Your task to perform on an android device: toggle wifi Image 0: 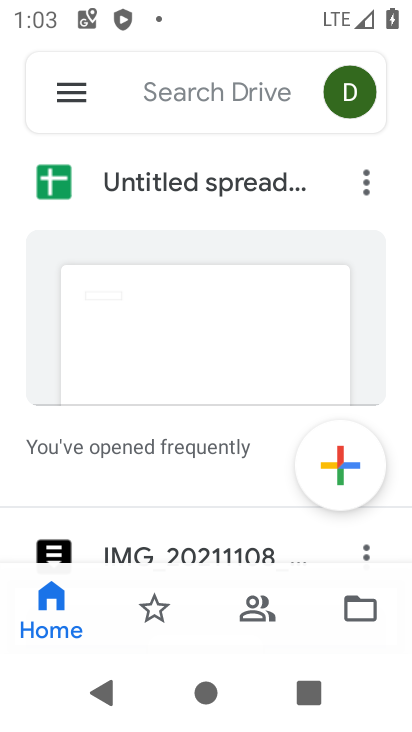
Step 0: press home button
Your task to perform on an android device: toggle wifi Image 1: 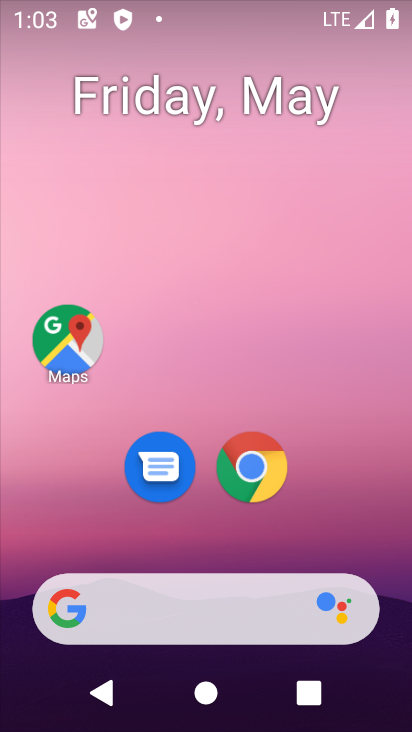
Step 1: drag from (339, 496) to (282, 91)
Your task to perform on an android device: toggle wifi Image 2: 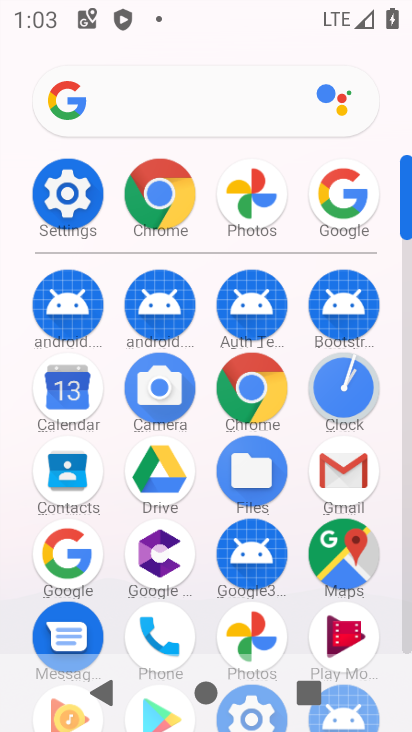
Step 2: drag from (208, 595) to (219, 244)
Your task to perform on an android device: toggle wifi Image 3: 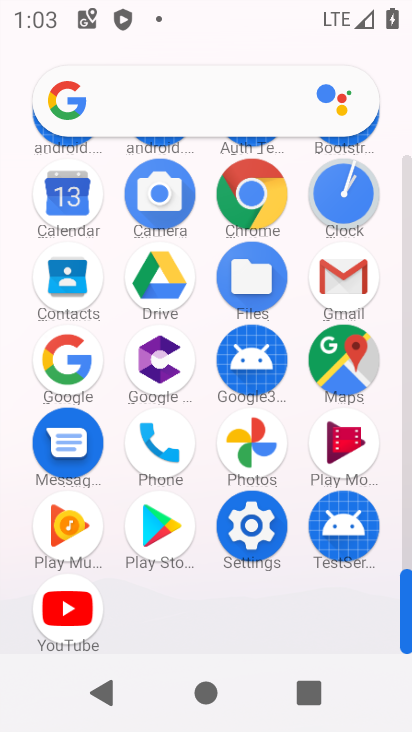
Step 3: click (252, 524)
Your task to perform on an android device: toggle wifi Image 4: 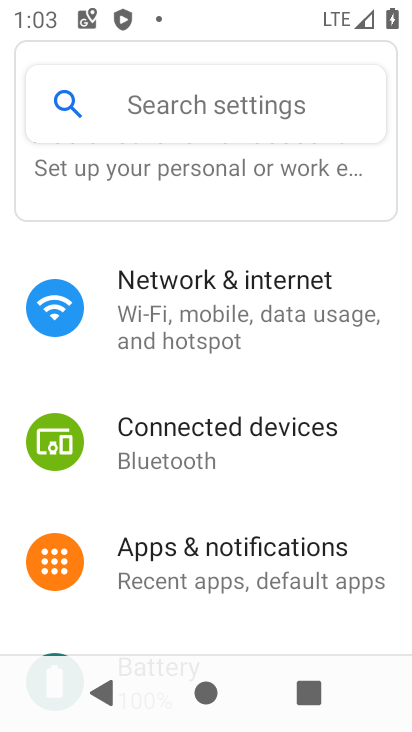
Step 4: click (259, 282)
Your task to perform on an android device: toggle wifi Image 5: 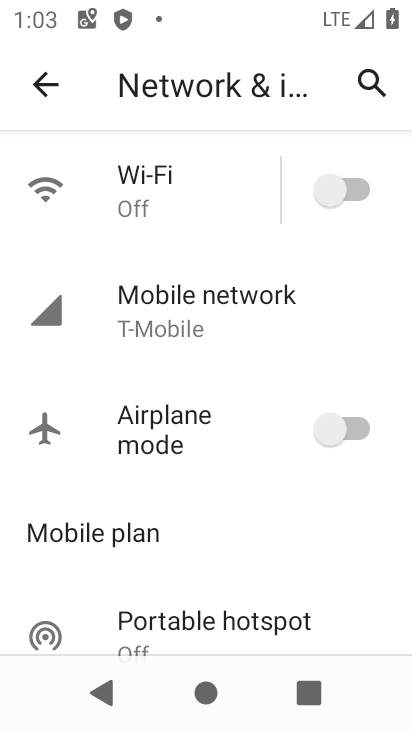
Step 5: click (327, 189)
Your task to perform on an android device: toggle wifi Image 6: 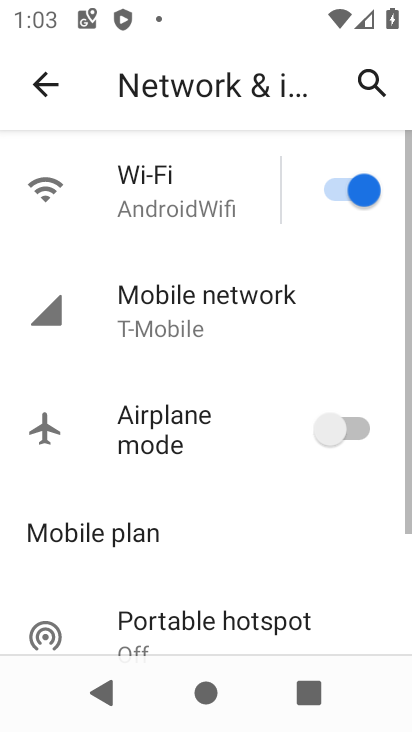
Step 6: task complete